Your task to perform on an android device: remove spam from my inbox in the gmail app Image 0: 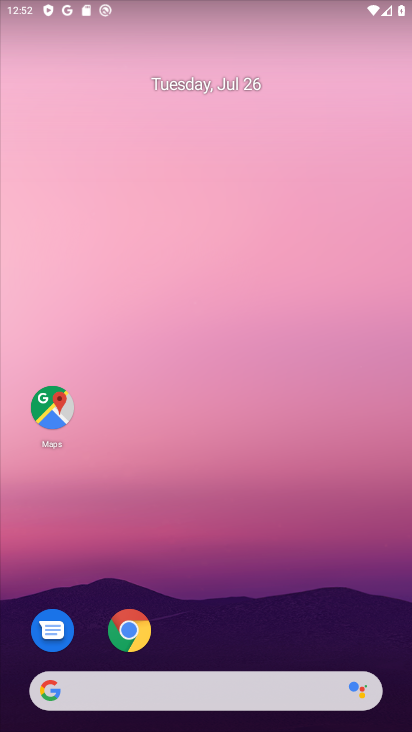
Step 0: click (223, 43)
Your task to perform on an android device: remove spam from my inbox in the gmail app Image 1: 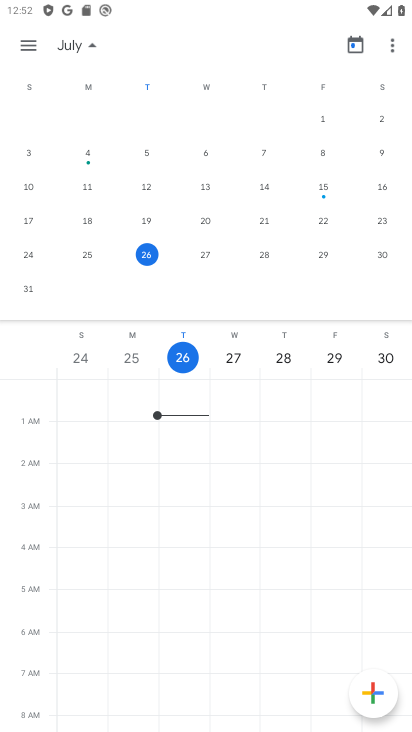
Step 1: press home button
Your task to perform on an android device: remove spam from my inbox in the gmail app Image 2: 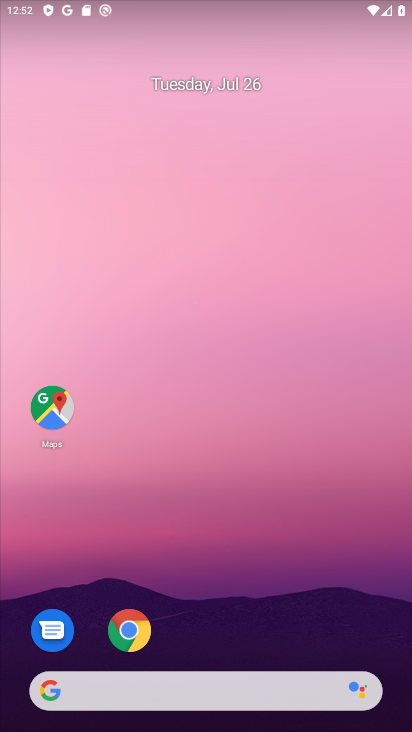
Step 2: drag from (148, 434) to (155, 20)
Your task to perform on an android device: remove spam from my inbox in the gmail app Image 3: 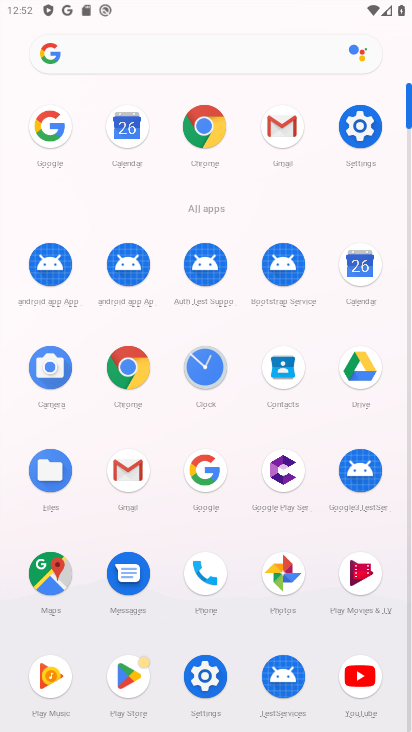
Step 3: click (119, 480)
Your task to perform on an android device: remove spam from my inbox in the gmail app Image 4: 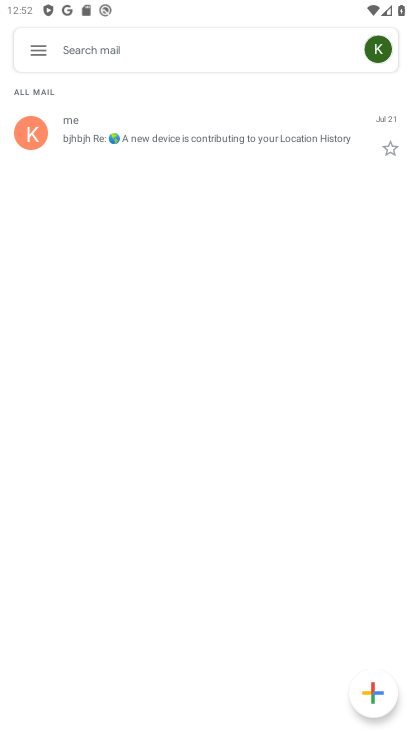
Step 4: click (38, 49)
Your task to perform on an android device: remove spam from my inbox in the gmail app Image 5: 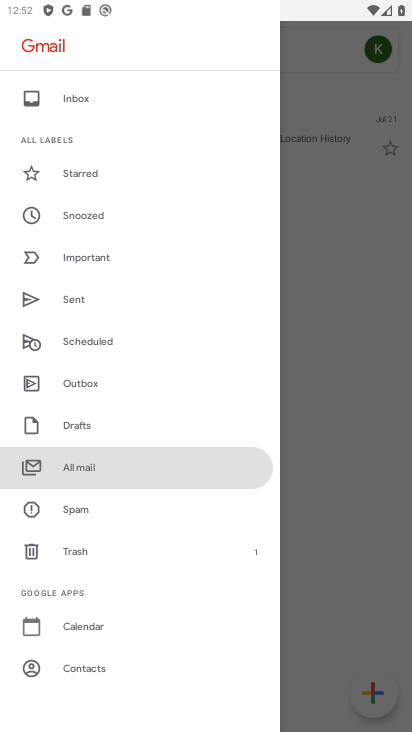
Step 5: click (70, 507)
Your task to perform on an android device: remove spam from my inbox in the gmail app Image 6: 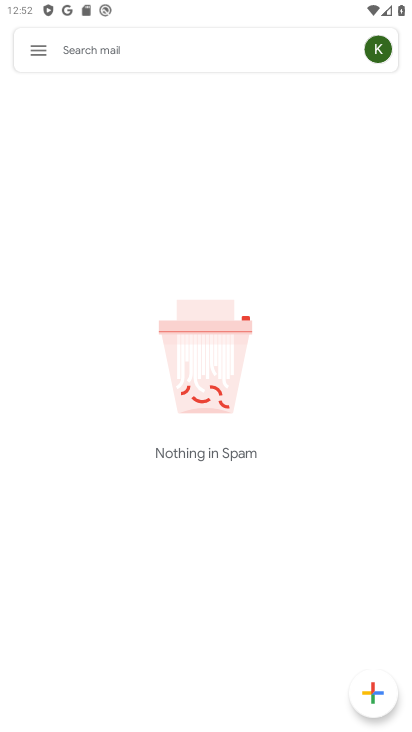
Step 6: task complete